Your task to perform on an android device: see sites visited before in the chrome app Image 0: 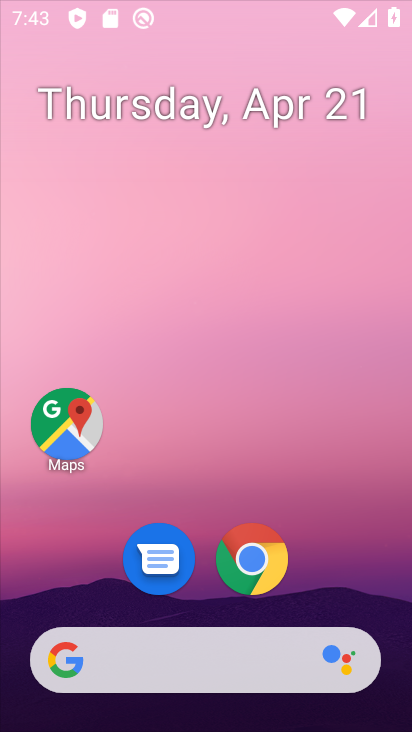
Step 0: drag from (264, 701) to (241, 119)
Your task to perform on an android device: see sites visited before in the chrome app Image 1: 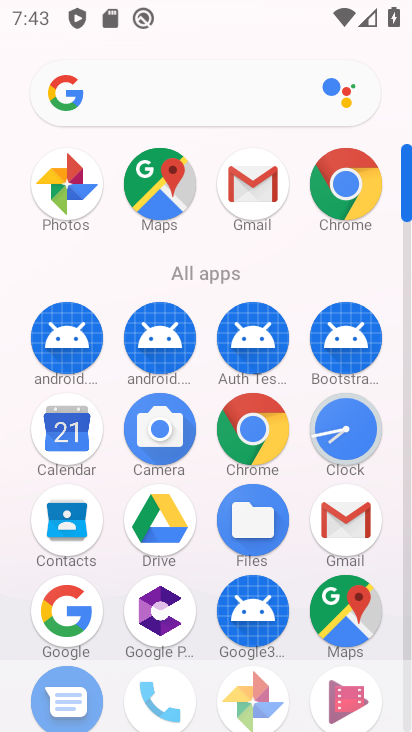
Step 1: click (249, 424)
Your task to perform on an android device: see sites visited before in the chrome app Image 2: 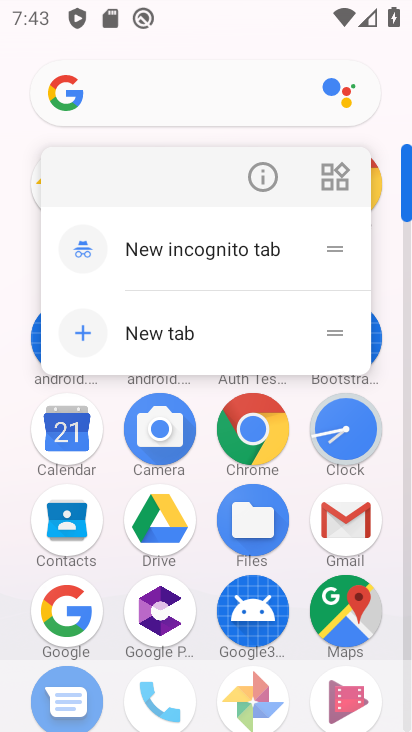
Step 2: click (204, 335)
Your task to perform on an android device: see sites visited before in the chrome app Image 3: 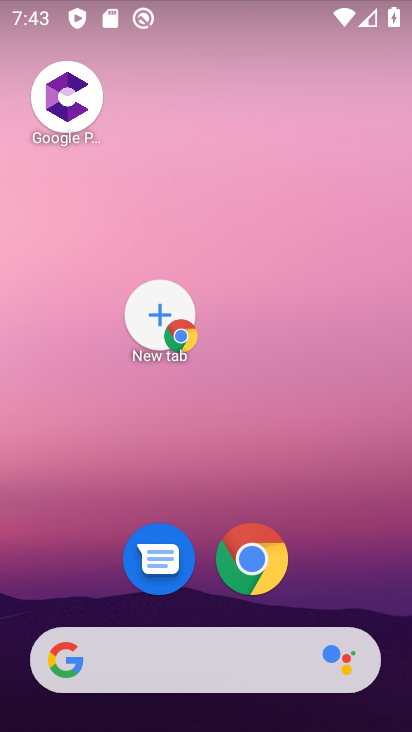
Step 3: click (242, 570)
Your task to perform on an android device: see sites visited before in the chrome app Image 4: 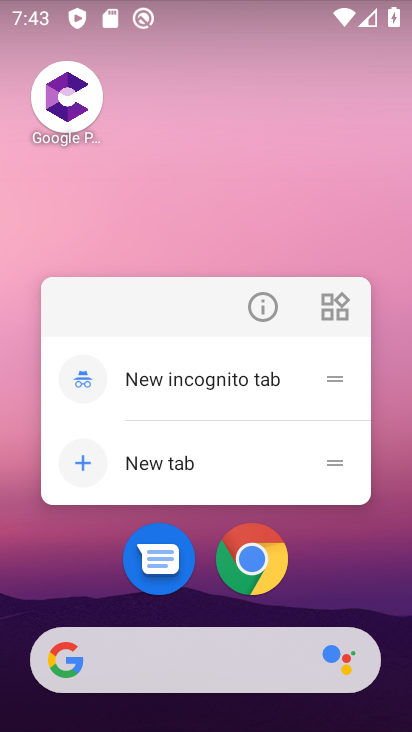
Step 4: click (246, 566)
Your task to perform on an android device: see sites visited before in the chrome app Image 5: 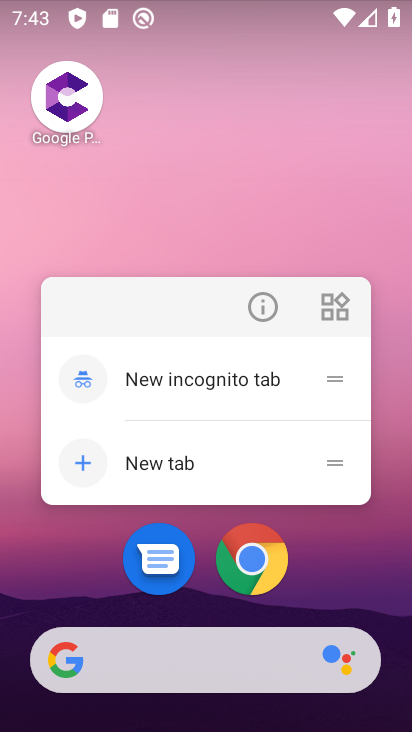
Step 5: click (246, 563)
Your task to perform on an android device: see sites visited before in the chrome app Image 6: 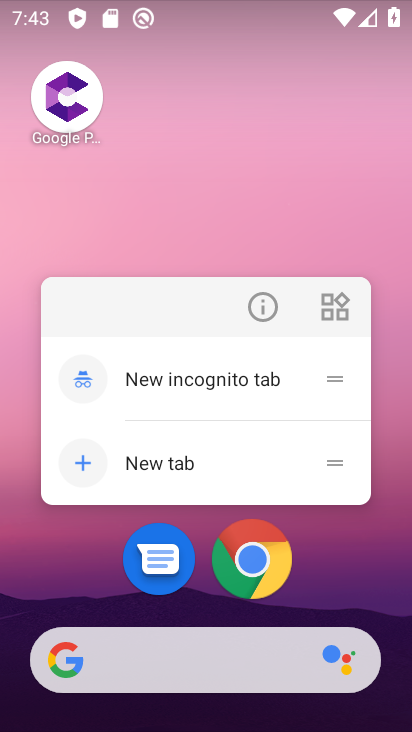
Step 6: click (240, 553)
Your task to perform on an android device: see sites visited before in the chrome app Image 7: 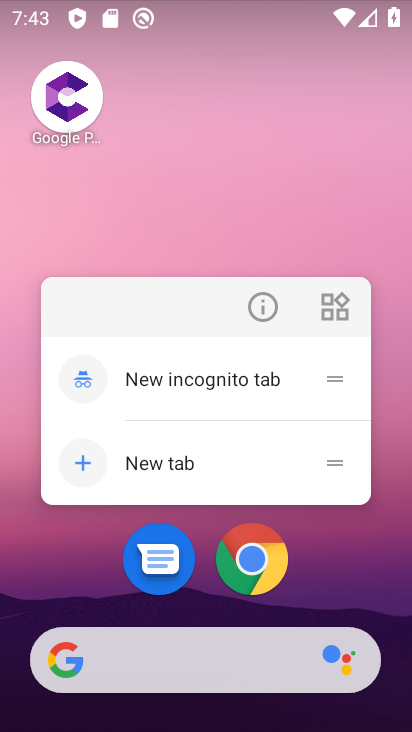
Step 7: click (166, 456)
Your task to perform on an android device: see sites visited before in the chrome app Image 8: 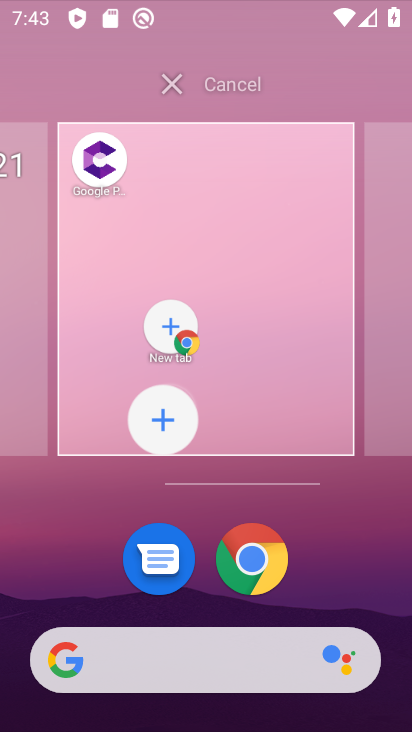
Step 8: click (169, 466)
Your task to perform on an android device: see sites visited before in the chrome app Image 9: 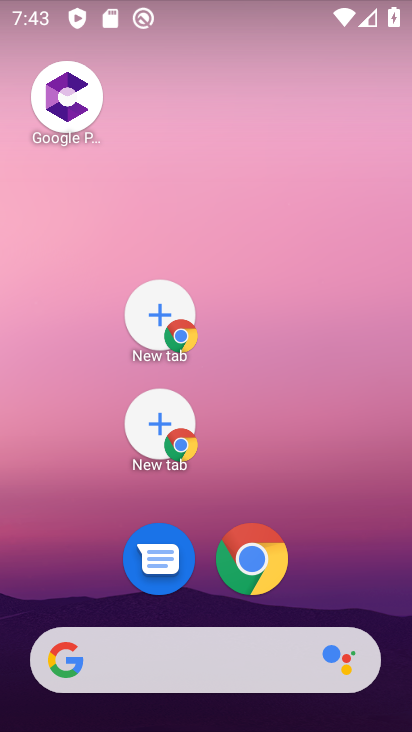
Step 9: click (247, 544)
Your task to perform on an android device: see sites visited before in the chrome app Image 10: 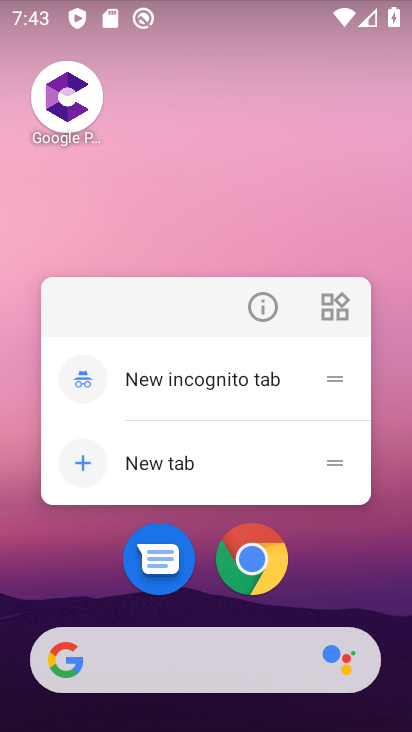
Step 10: click (245, 556)
Your task to perform on an android device: see sites visited before in the chrome app Image 11: 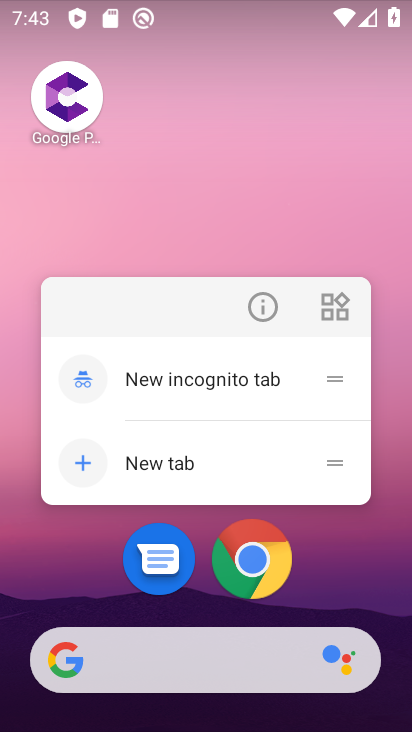
Step 11: click (250, 562)
Your task to perform on an android device: see sites visited before in the chrome app Image 12: 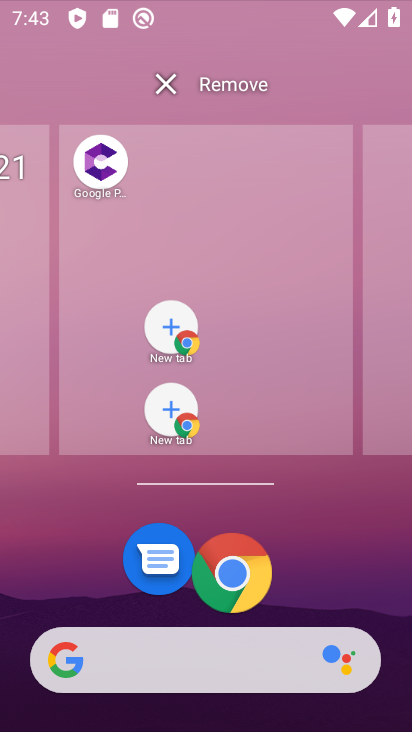
Step 12: click (232, 575)
Your task to perform on an android device: see sites visited before in the chrome app Image 13: 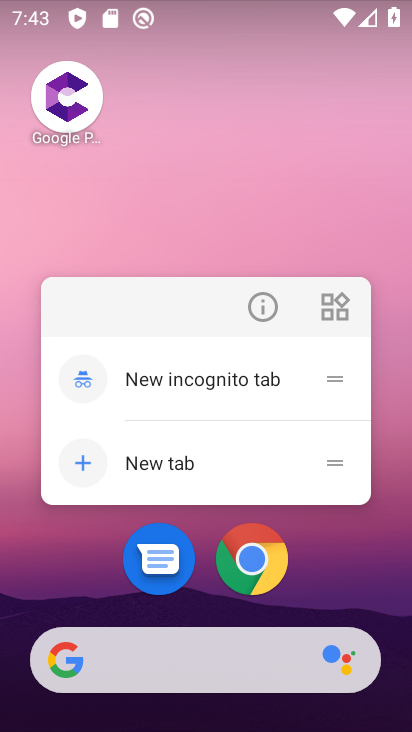
Step 13: click (246, 557)
Your task to perform on an android device: see sites visited before in the chrome app Image 14: 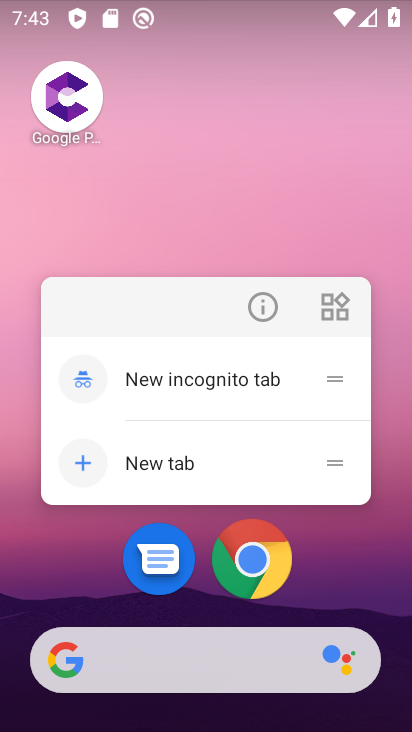
Step 14: click (249, 557)
Your task to perform on an android device: see sites visited before in the chrome app Image 15: 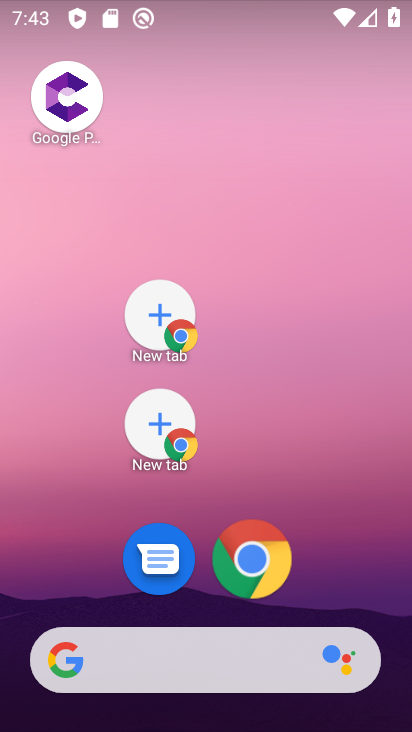
Step 15: click (250, 557)
Your task to perform on an android device: see sites visited before in the chrome app Image 16: 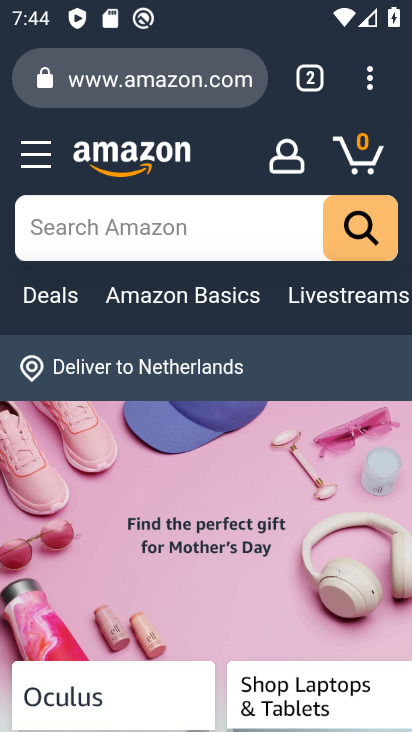
Step 16: drag from (363, 70) to (102, 362)
Your task to perform on an android device: see sites visited before in the chrome app Image 17: 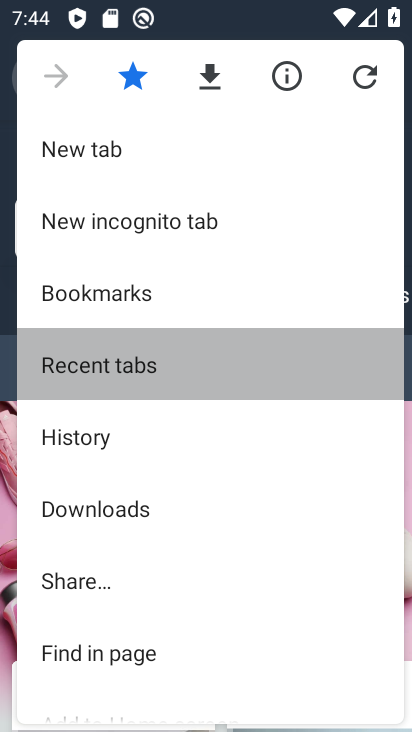
Step 17: click (102, 362)
Your task to perform on an android device: see sites visited before in the chrome app Image 18: 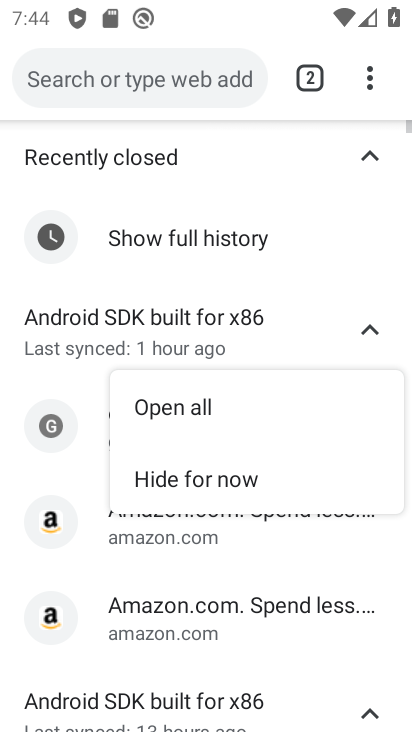
Step 18: click (289, 307)
Your task to perform on an android device: see sites visited before in the chrome app Image 19: 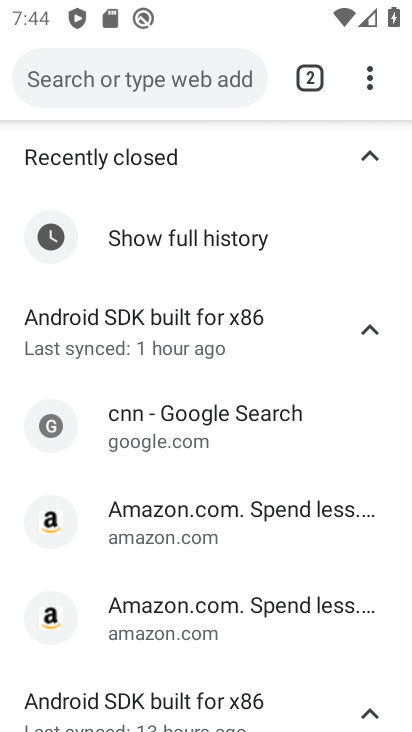
Step 19: task complete